Your task to perform on an android device: Open Yahoo.com Image 0: 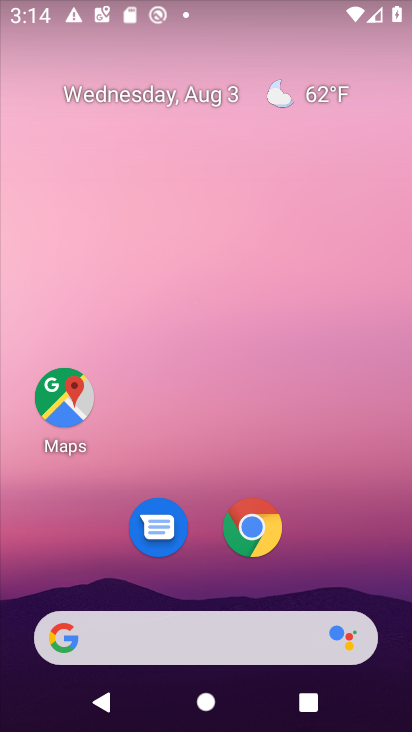
Step 0: drag from (354, 559) to (263, 128)
Your task to perform on an android device: Open Yahoo.com Image 1: 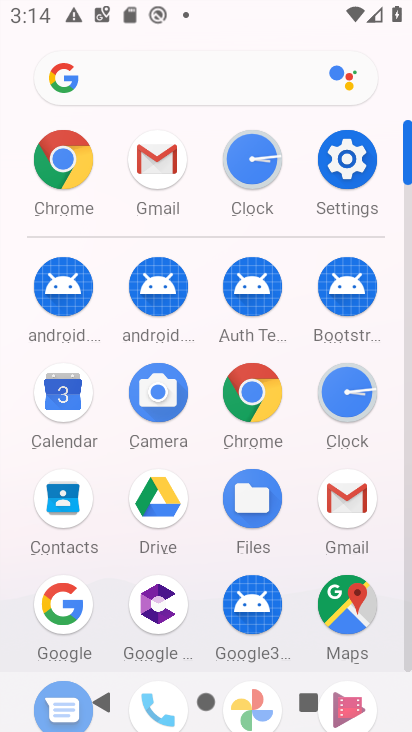
Step 1: click (72, 160)
Your task to perform on an android device: Open Yahoo.com Image 2: 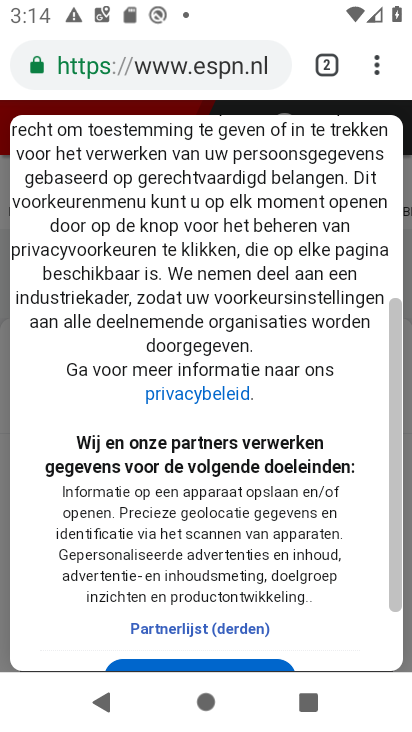
Step 2: click (178, 78)
Your task to perform on an android device: Open Yahoo.com Image 3: 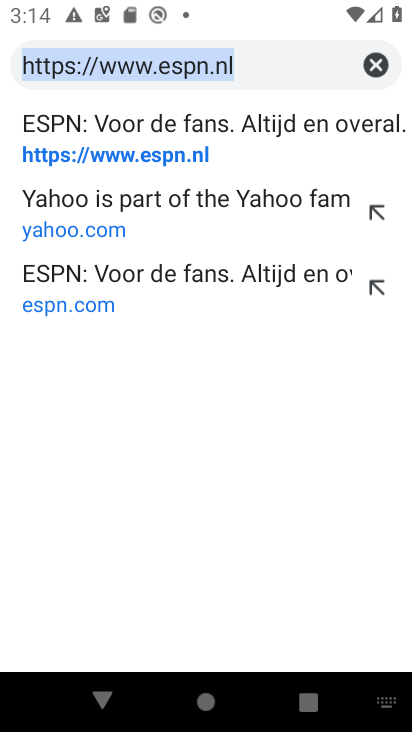
Step 3: click (117, 236)
Your task to perform on an android device: Open Yahoo.com Image 4: 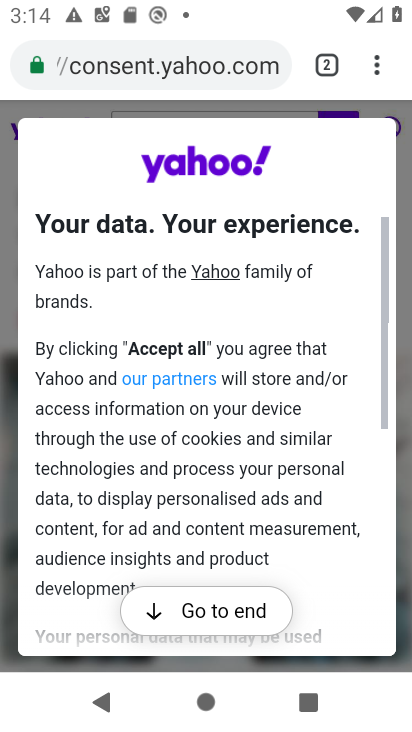
Step 4: task complete